Your task to perform on an android device: Open calendar and show me the third week of next month Image 0: 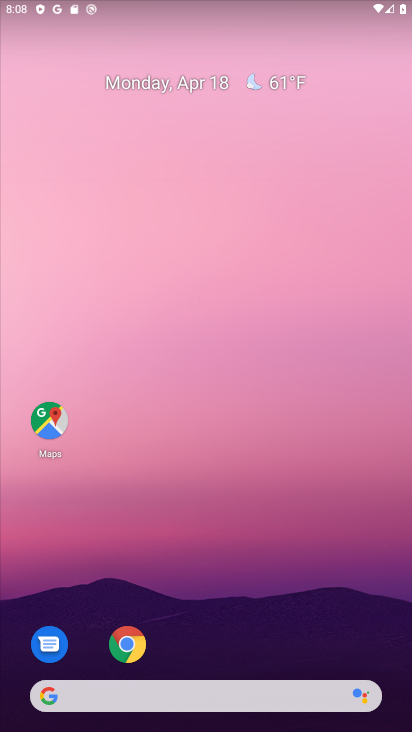
Step 0: drag from (174, 693) to (161, 152)
Your task to perform on an android device: Open calendar and show me the third week of next month Image 1: 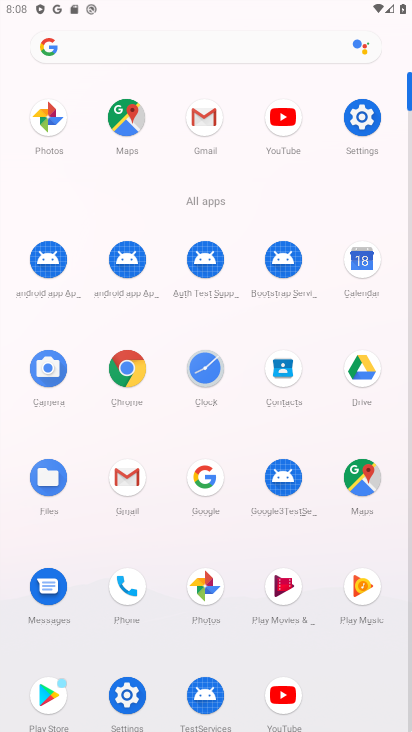
Step 1: click (372, 258)
Your task to perform on an android device: Open calendar and show me the third week of next month Image 2: 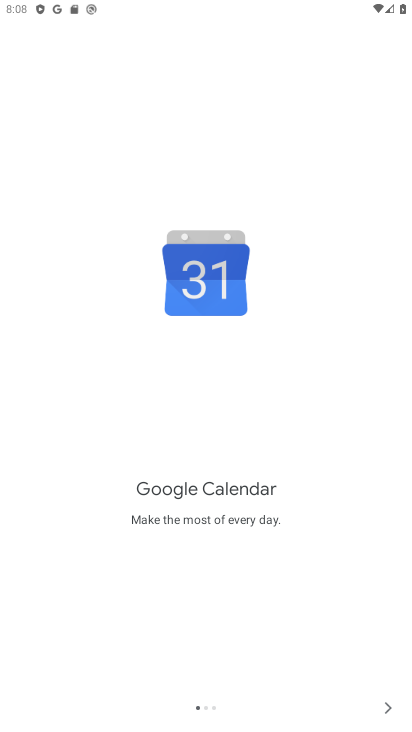
Step 2: click (388, 709)
Your task to perform on an android device: Open calendar and show me the third week of next month Image 3: 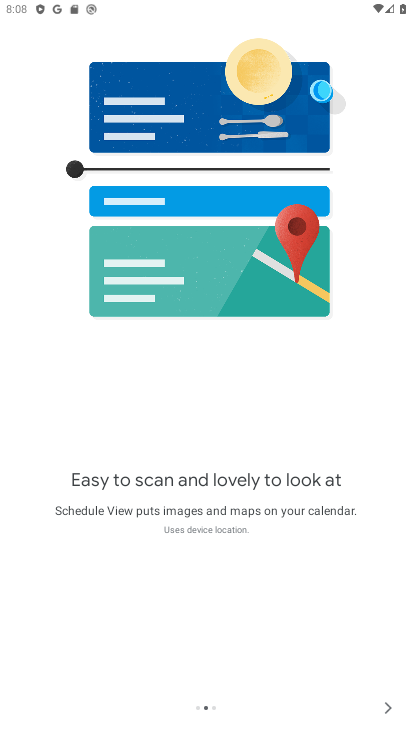
Step 3: click (388, 709)
Your task to perform on an android device: Open calendar and show me the third week of next month Image 4: 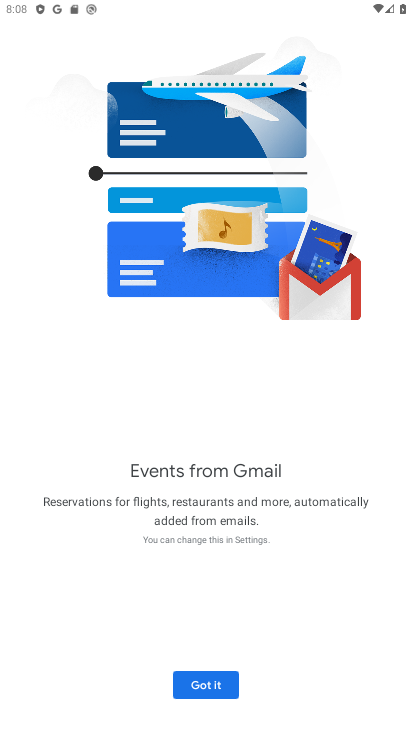
Step 4: click (224, 694)
Your task to perform on an android device: Open calendar and show me the third week of next month Image 5: 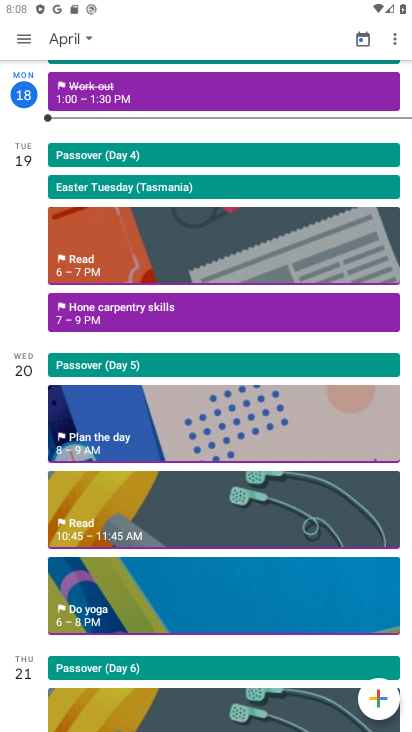
Step 5: click (14, 43)
Your task to perform on an android device: Open calendar and show me the third week of next month Image 6: 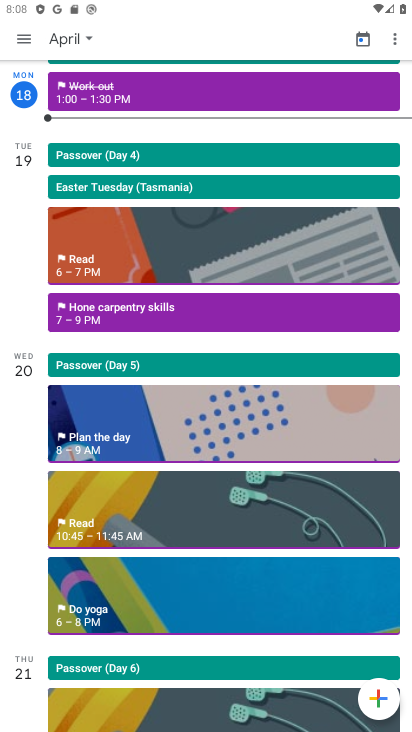
Step 6: click (24, 41)
Your task to perform on an android device: Open calendar and show me the third week of next month Image 7: 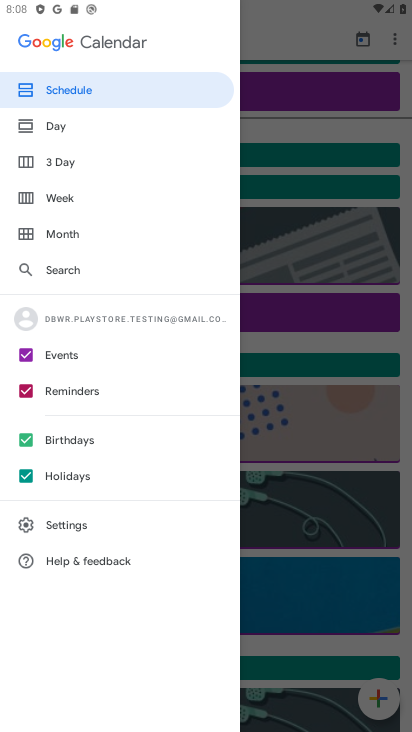
Step 7: click (61, 236)
Your task to perform on an android device: Open calendar and show me the third week of next month Image 8: 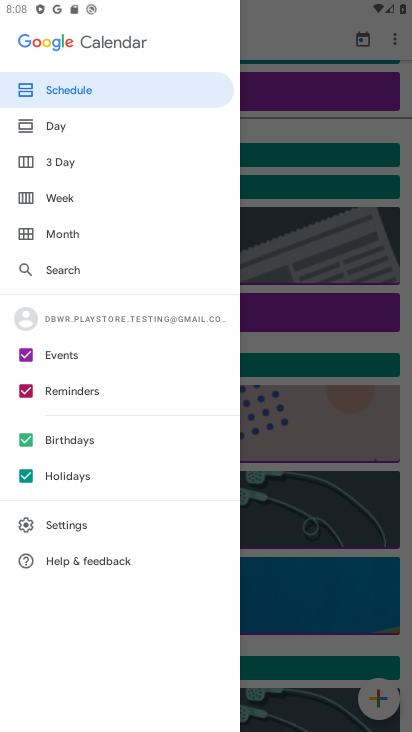
Step 8: click (61, 236)
Your task to perform on an android device: Open calendar and show me the third week of next month Image 9: 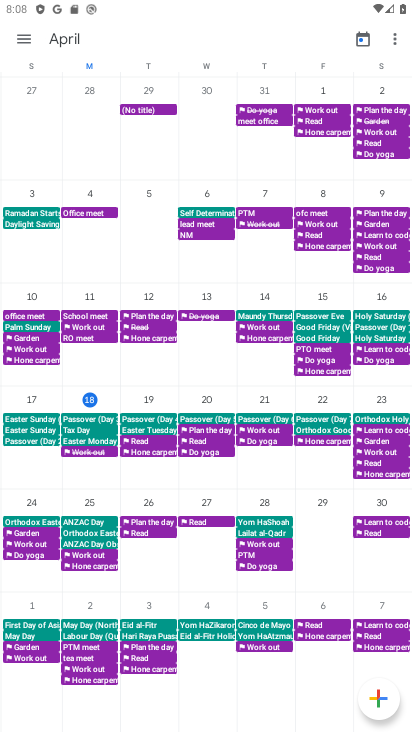
Step 9: task complete